Your task to perform on an android device: make emails show in primary in the gmail app Image 0: 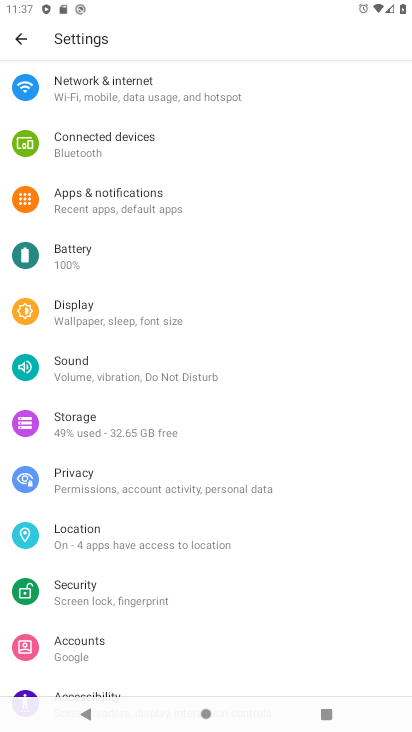
Step 0: press home button
Your task to perform on an android device: make emails show in primary in the gmail app Image 1: 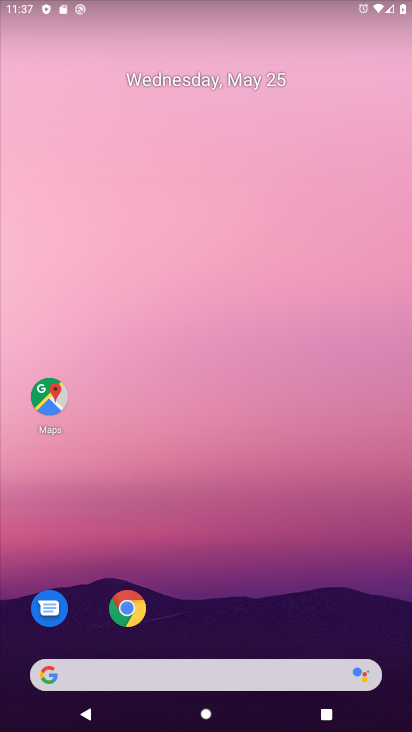
Step 1: drag from (228, 695) to (228, 54)
Your task to perform on an android device: make emails show in primary in the gmail app Image 2: 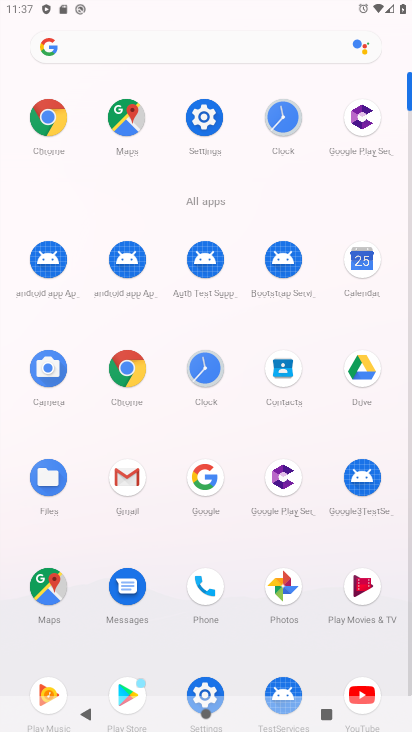
Step 2: click (132, 462)
Your task to perform on an android device: make emails show in primary in the gmail app Image 3: 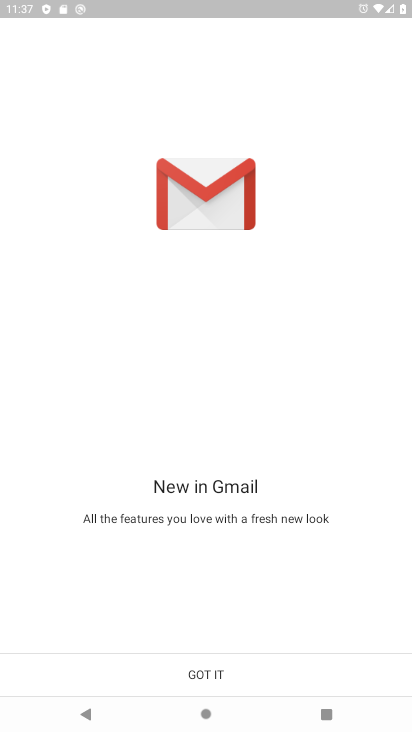
Step 3: click (219, 671)
Your task to perform on an android device: make emails show in primary in the gmail app Image 4: 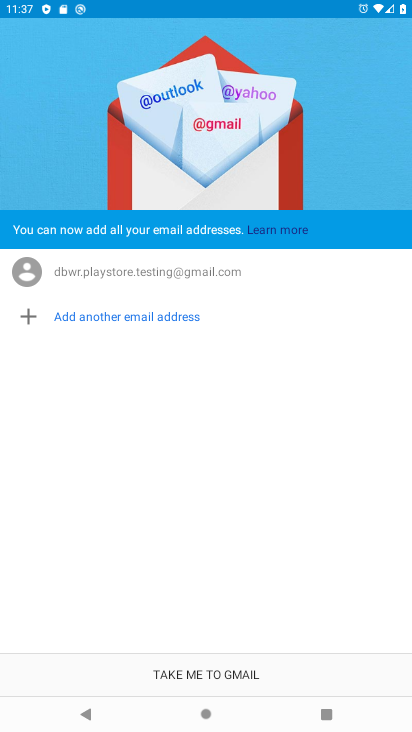
Step 4: click (219, 671)
Your task to perform on an android device: make emails show in primary in the gmail app Image 5: 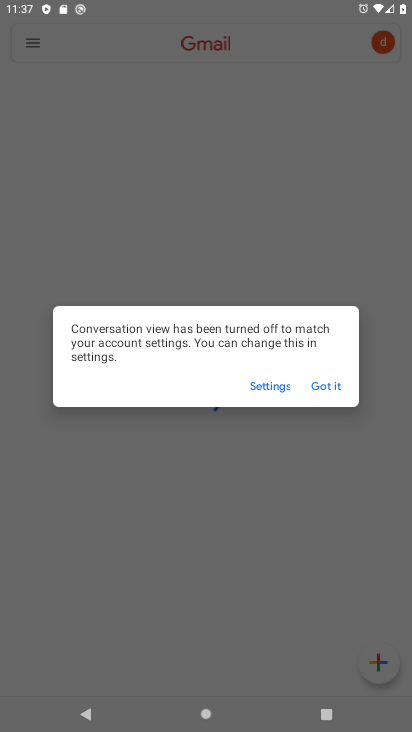
Step 5: click (330, 383)
Your task to perform on an android device: make emails show in primary in the gmail app Image 6: 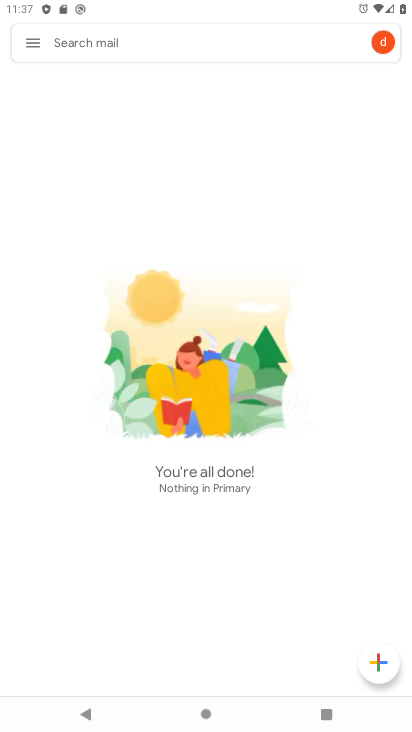
Step 6: click (26, 42)
Your task to perform on an android device: make emails show in primary in the gmail app Image 7: 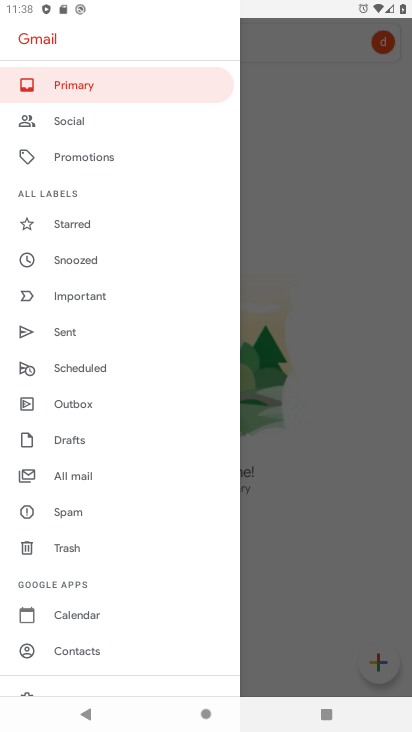
Step 7: drag from (74, 625) to (80, 212)
Your task to perform on an android device: make emails show in primary in the gmail app Image 8: 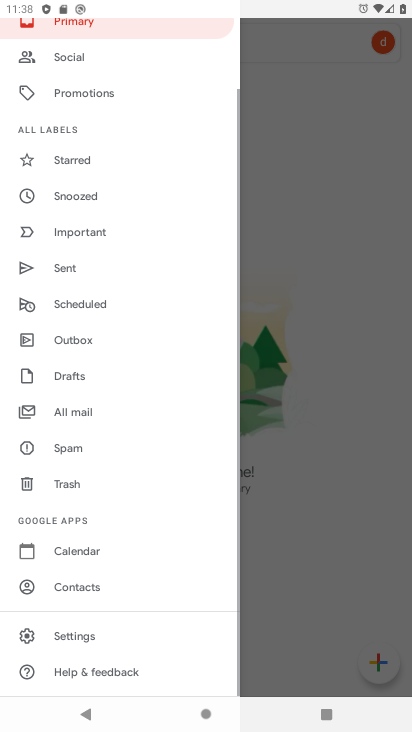
Step 8: click (69, 633)
Your task to perform on an android device: make emails show in primary in the gmail app Image 9: 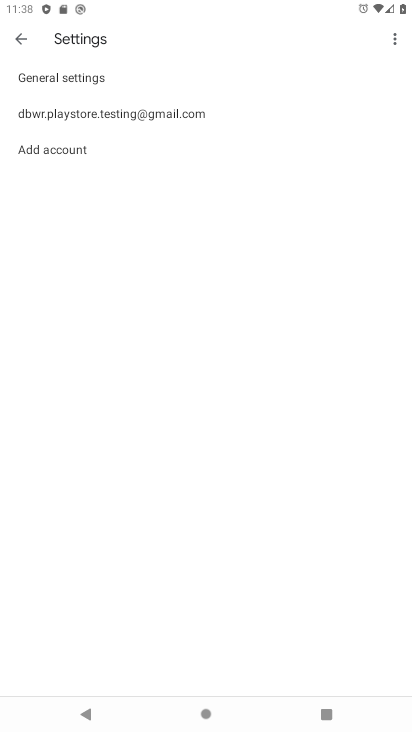
Step 9: click (147, 111)
Your task to perform on an android device: make emails show in primary in the gmail app Image 10: 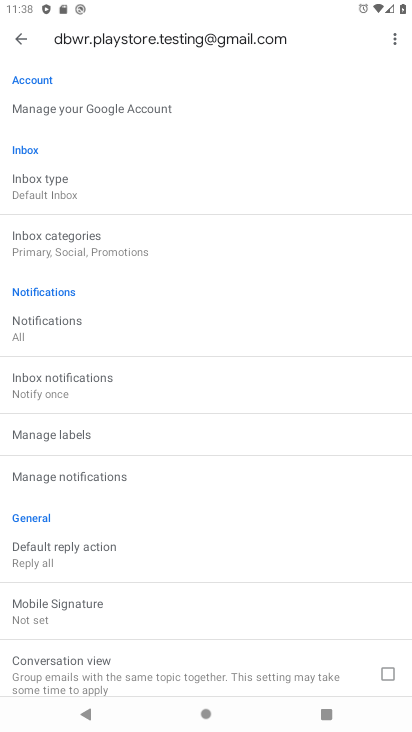
Step 10: click (62, 250)
Your task to perform on an android device: make emails show in primary in the gmail app Image 11: 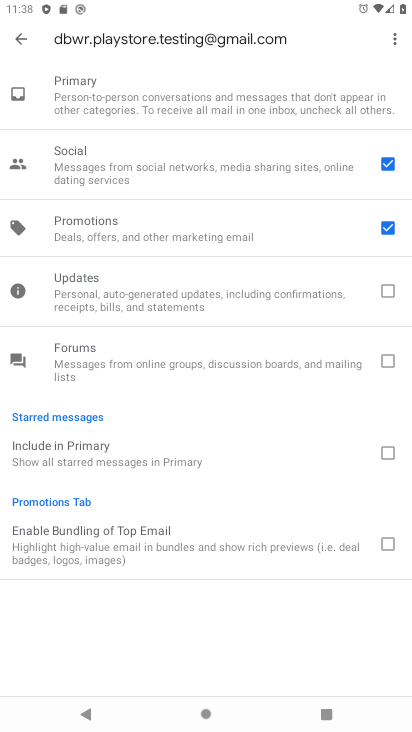
Step 11: click (387, 224)
Your task to perform on an android device: make emails show in primary in the gmail app Image 12: 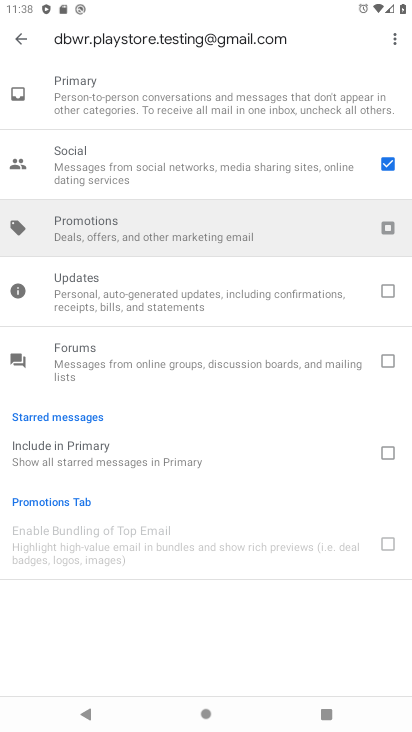
Step 12: click (384, 172)
Your task to perform on an android device: make emails show in primary in the gmail app Image 13: 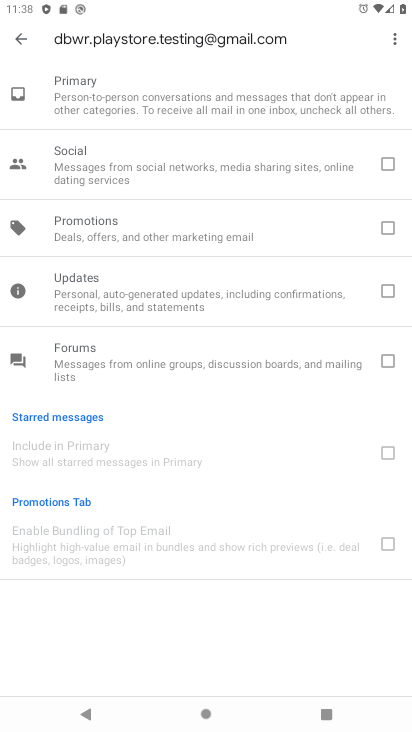
Step 13: click (26, 40)
Your task to perform on an android device: make emails show in primary in the gmail app Image 14: 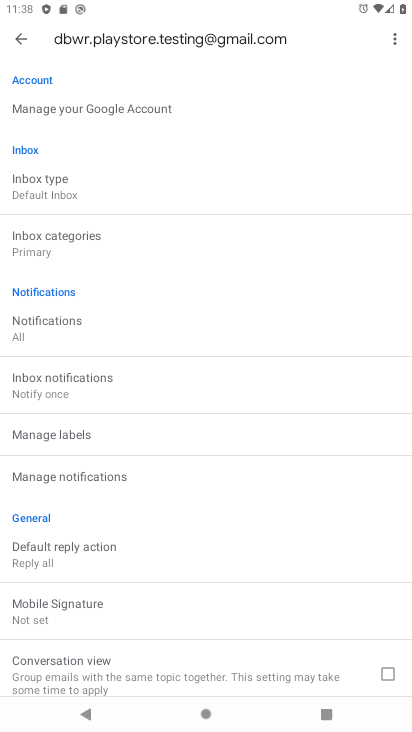
Step 14: task complete